Your task to perform on an android device: set the stopwatch Image 0: 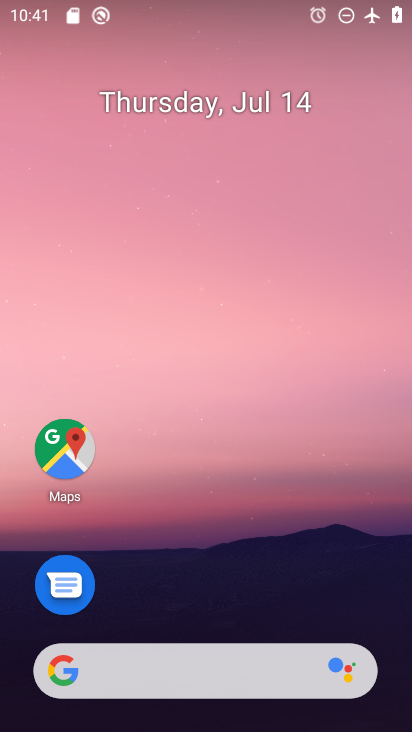
Step 0: drag from (192, 612) to (96, 42)
Your task to perform on an android device: set the stopwatch Image 1: 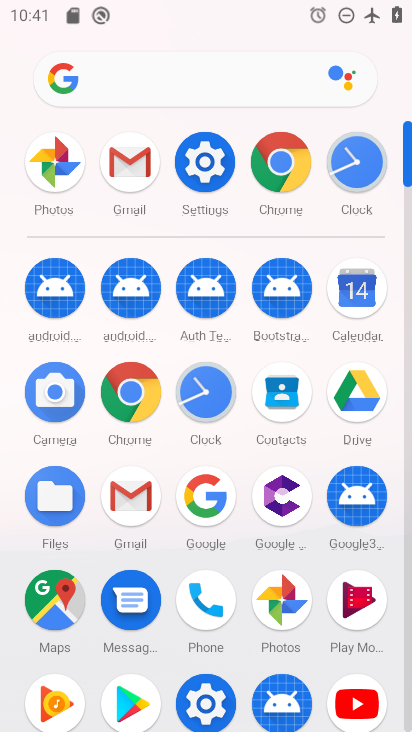
Step 1: click (209, 374)
Your task to perform on an android device: set the stopwatch Image 2: 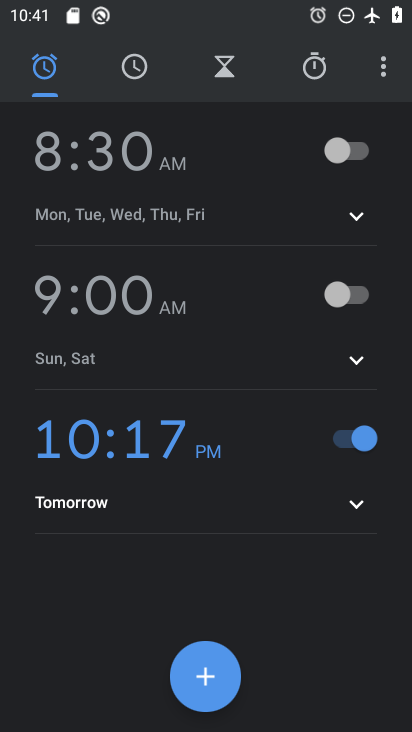
Step 2: click (313, 50)
Your task to perform on an android device: set the stopwatch Image 3: 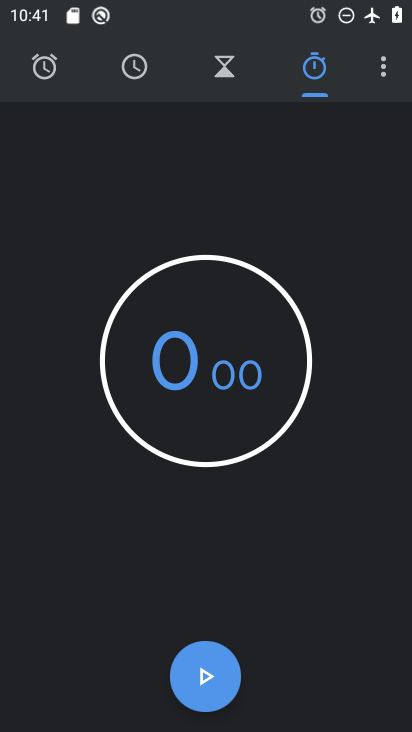
Step 3: click (204, 665)
Your task to perform on an android device: set the stopwatch Image 4: 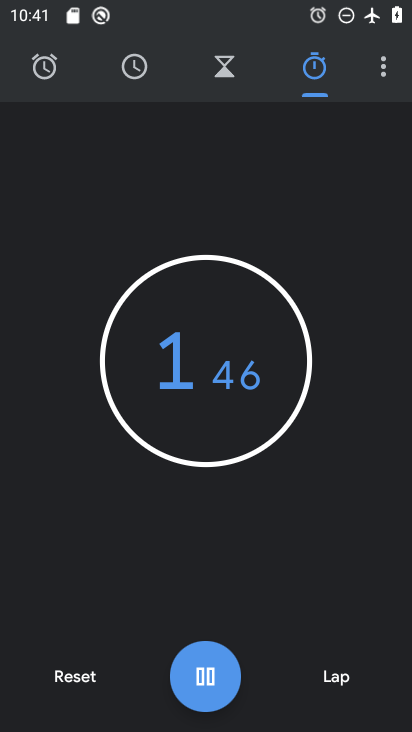
Step 4: click (204, 665)
Your task to perform on an android device: set the stopwatch Image 5: 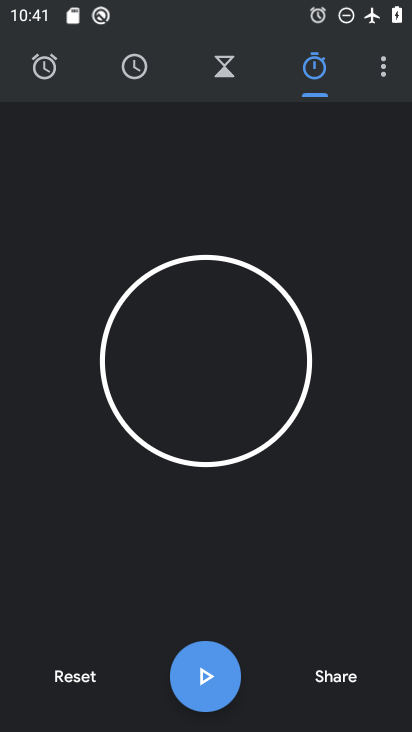
Step 5: task complete